Your task to perform on an android device: Search for sushi restaurants on Maps Image 0: 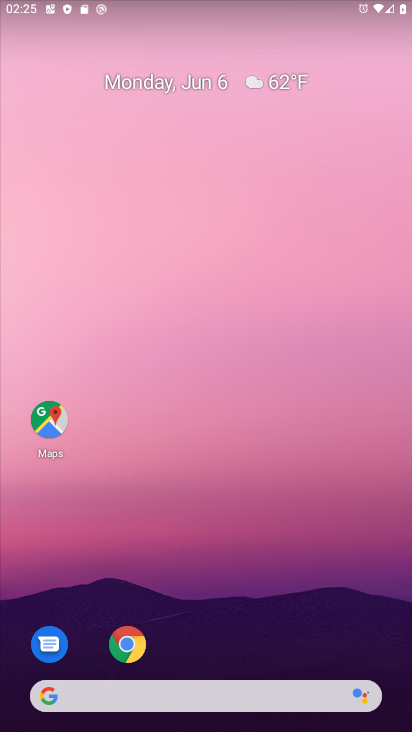
Step 0: click (51, 425)
Your task to perform on an android device: Search for sushi restaurants on Maps Image 1: 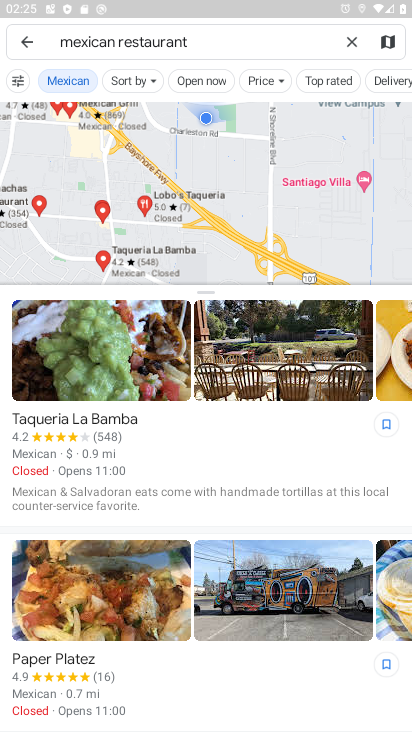
Step 1: click (349, 42)
Your task to perform on an android device: Search for sushi restaurants on Maps Image 2: 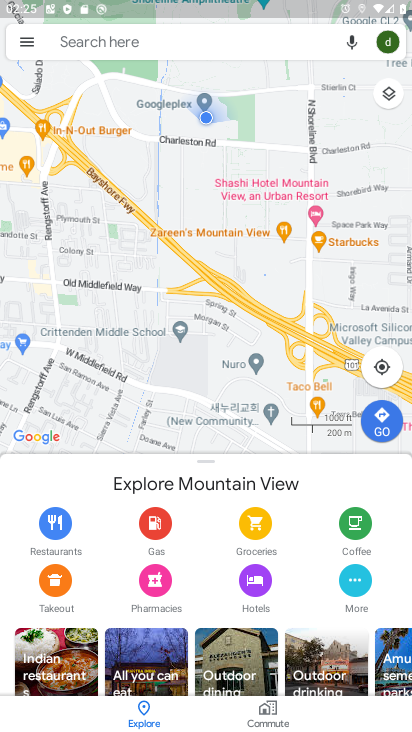
Step 2: click (227, 49)
Your task to perform on an android device: Search for sushi restaurants on Maps Image 3: 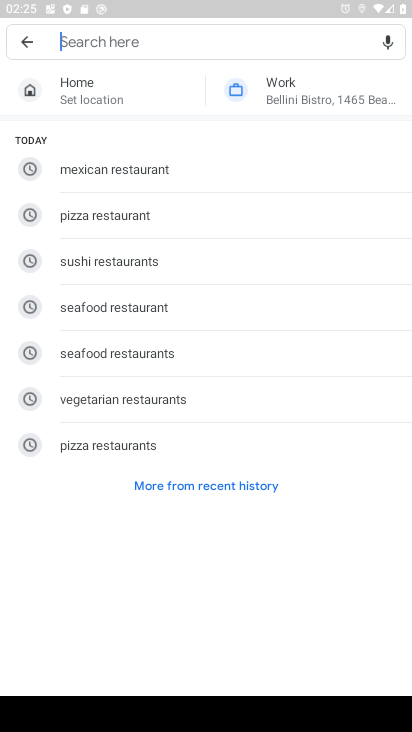
Step 3: click (115, 264)
Your task to perform on an android device: Search for sushi restaurants on Maps Image 4: 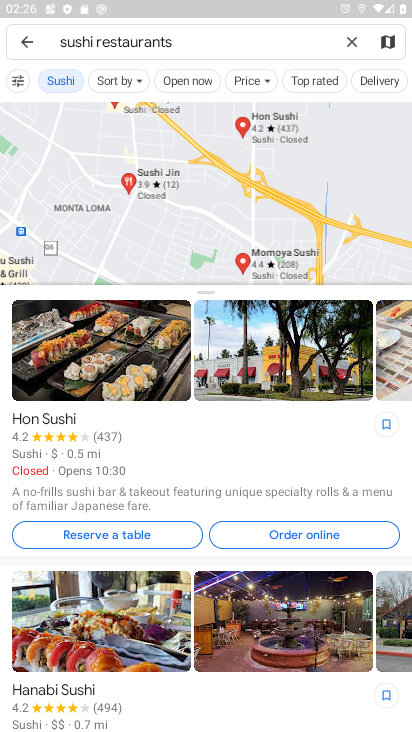
Step 4: task complete